Your task to perform on an android device: turn on priority inbox in the gmail app Image 0: 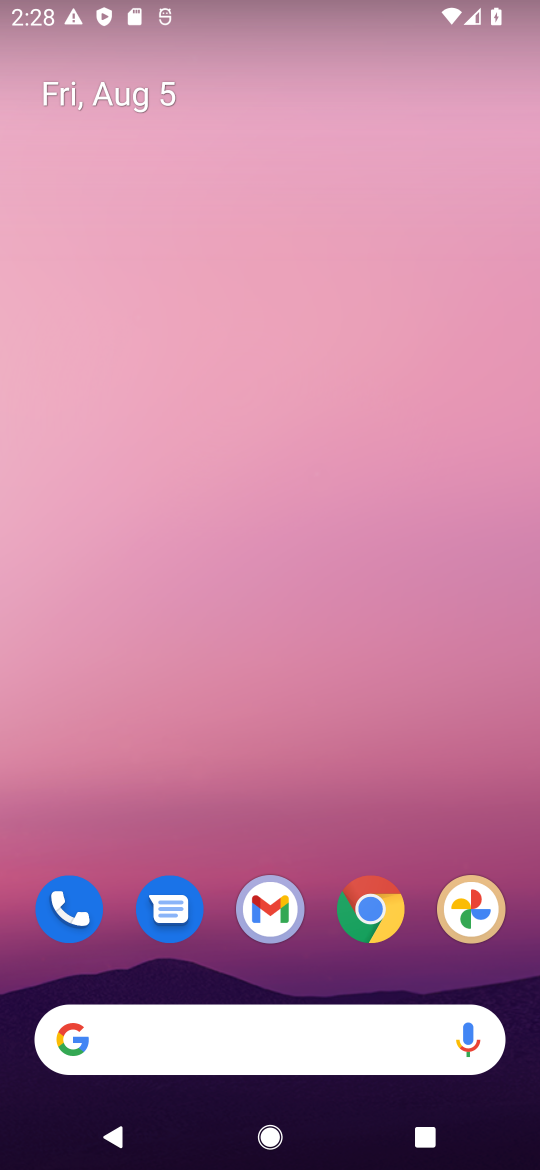
Step 0: drag from (208, 853) to (199, 451)
Your task to perform on an android device: turn on priority inbox in the gmail app Image 1: 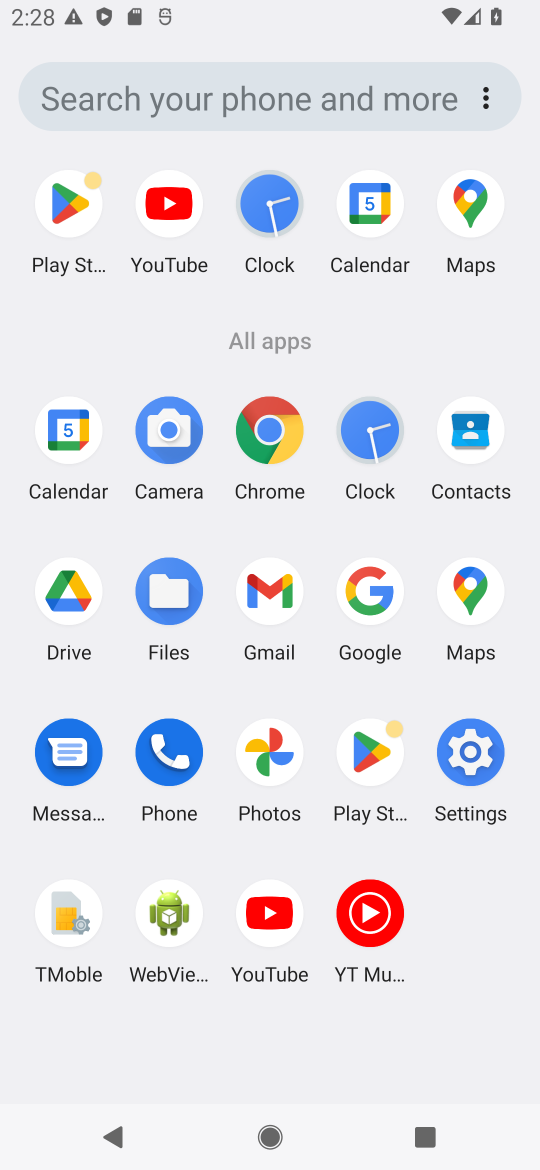
Step 1: click (289, 604)
Your task to perform on an android device: turn on priority inbox in the gmail app Image 2: 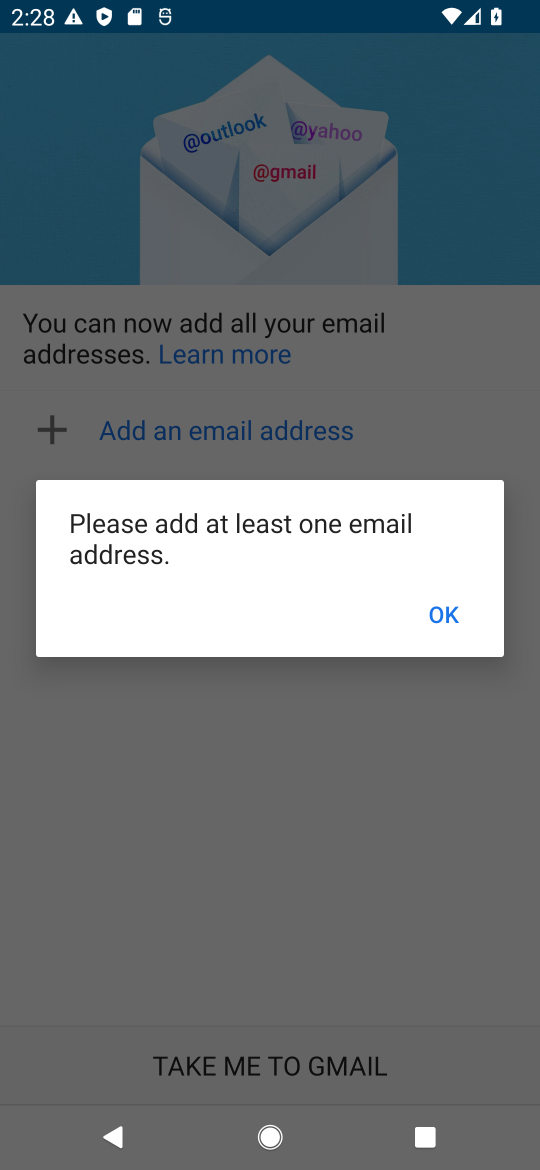
Step 2: task complete